Your task to perform on an android device: Turn on the flashlight Image 0: 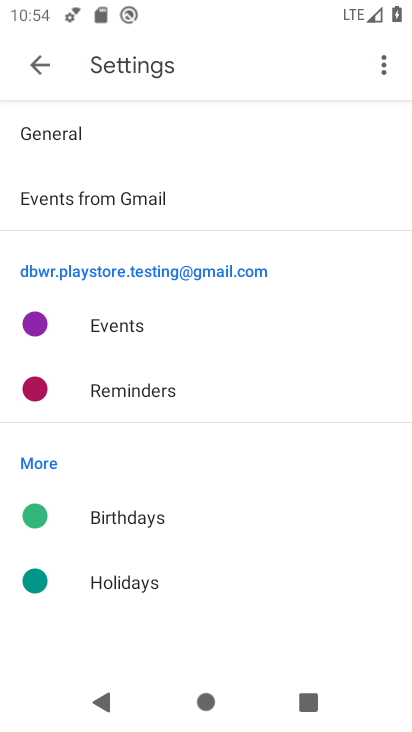
Step 0: press home button
Your task to perform on an android device: Turn on the flashlight Image 1: 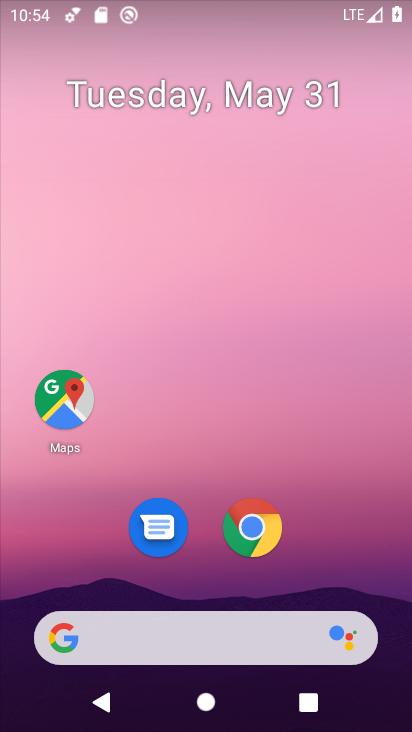
Step 1: task complete